Your task to perform on an android device: What's on my calendar today? Image 0: 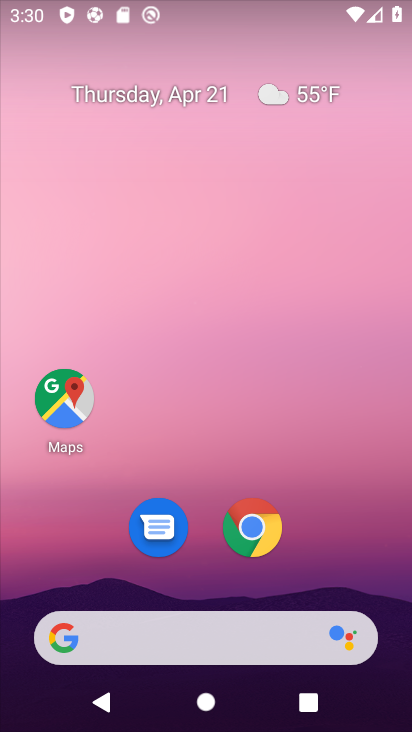
Step 0: drag from (332, 523) to (294, 198)
Your task to perform on an android device: What's on my calendar today? Image 1: 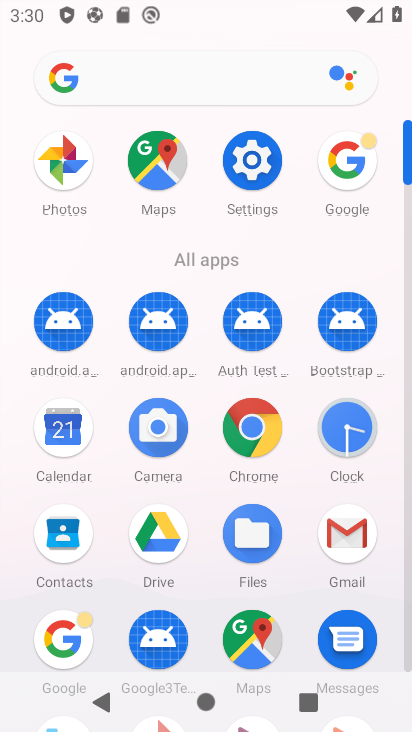
Step 1: click (61, 447)
Your task to perform on an android device: What's on my calendar today? Image 2: 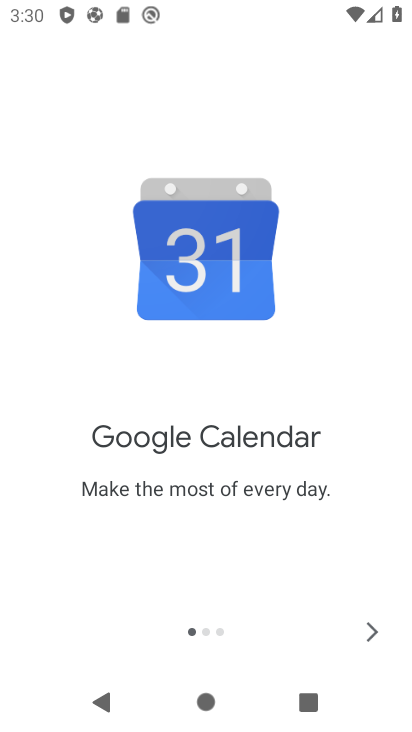
Step 2: click (373, 635)
Your task to perform on an android device: What's on my calendar today? Image 3: 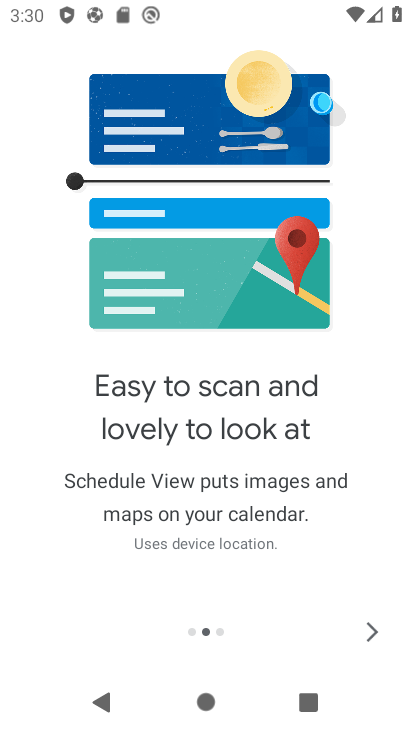
Step 3: click (373, 635)
Your task to perform on an android device: What's on my calendar today? Image 4: 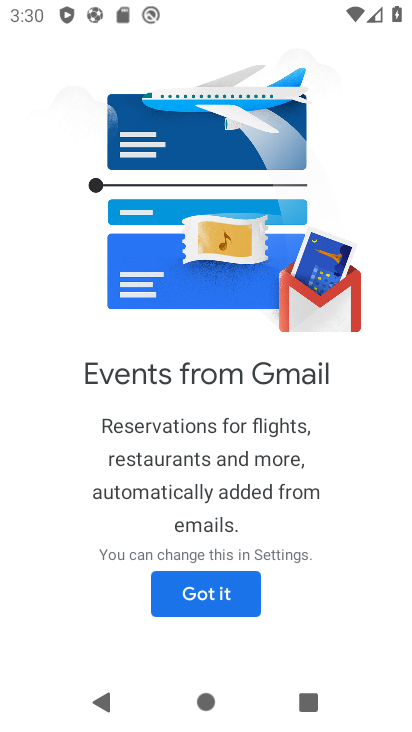
Step 4: click (236, 608)
Your task to perform on an android device: What's on my calendar today? Image 5: 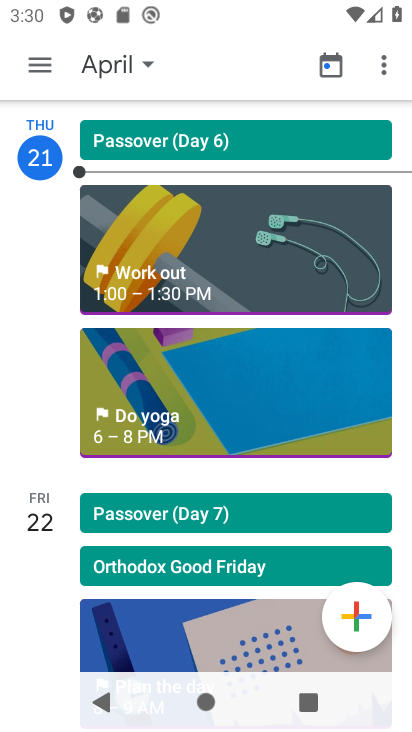
Step 5: task complete